Your task to perform on an android device: Show me productivity apps on the Play Store Image 0: 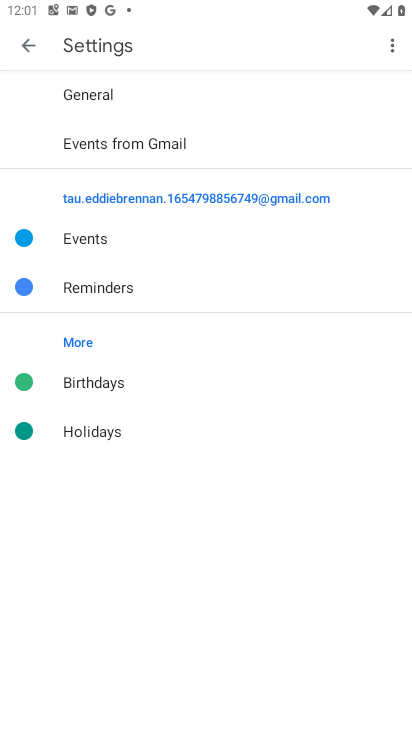
Step 0: press home button
Your task to perform on an android device: Show me productivity apps on the Play Store Image 1: 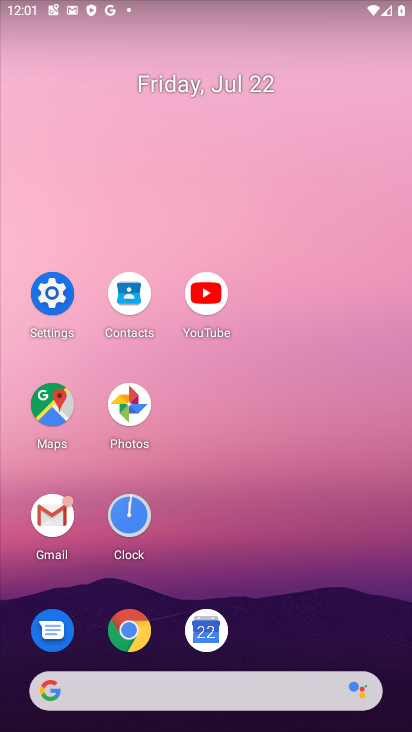
Step 1: drag from (301, 628) to (209, 31)
Your task to perform on an android device: Show me productivity apps on the Play Store Image 2: 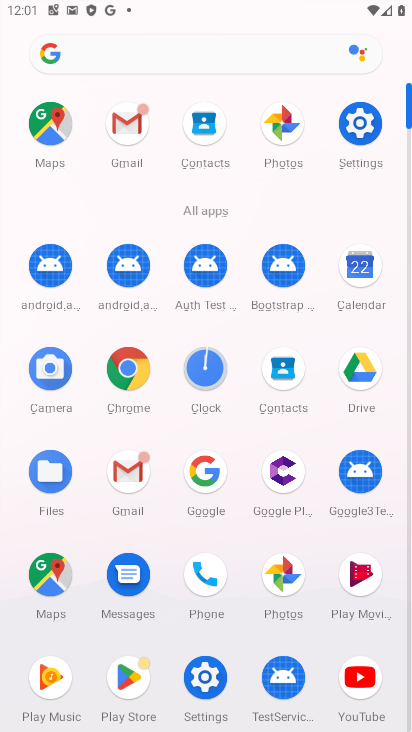
Step 2: click (132, 674)
Your task to perform on an android device: Show me productivity apps on the Play Store Image 3: 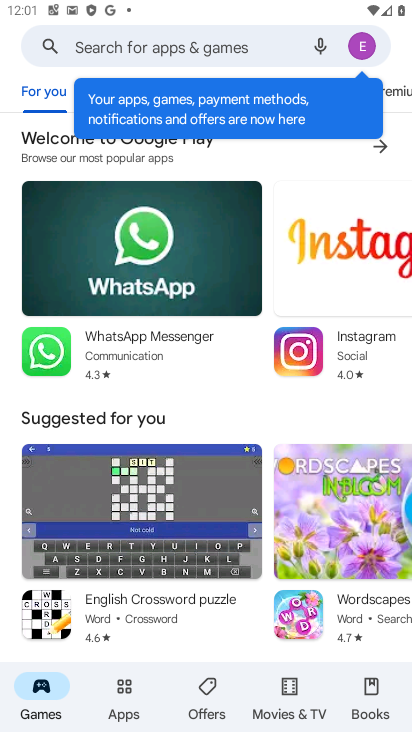
Step 3: click (124, 688)
Your task to perform on an android device: Show me productivity apps on the Play Store Image 4: 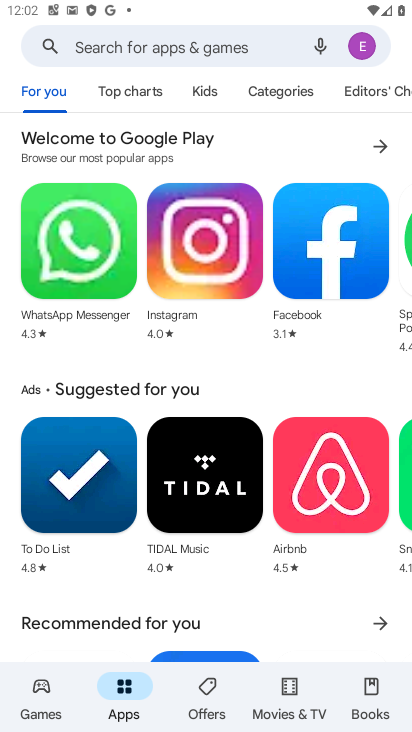
Step 4: task complete